Your task to perform on an android device: Show me popular games on the Play Store Image 0: 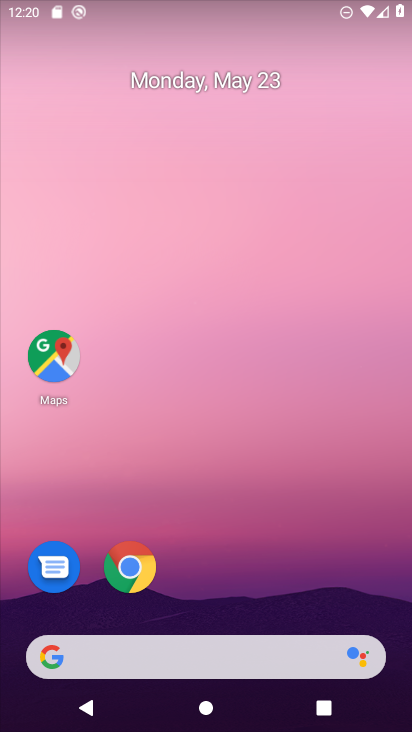
Step 0: drag from (183, 623) to (255, 52)
Your task to perform on an android device: Show me popular games on the Play Store Image 1: 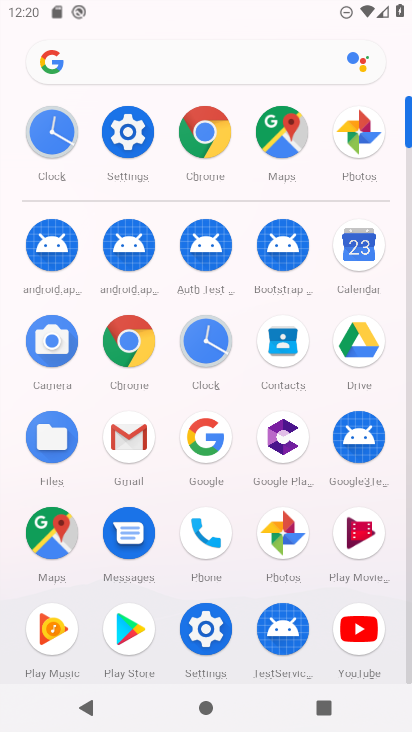
Step 1: drag from (240, 663) to (292, 343)
Your task to perform on an android device: Show me popular games on the Play Store Image 2: 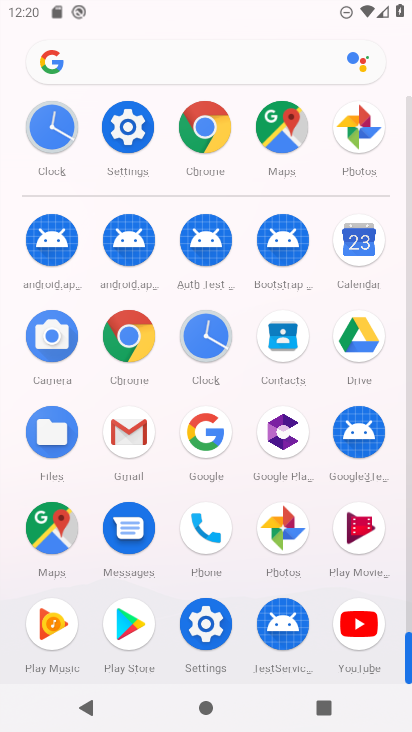
Step 2: click (130, 611)
Your task to perform on an android device: Show me popular games on the Play Store Image 3: 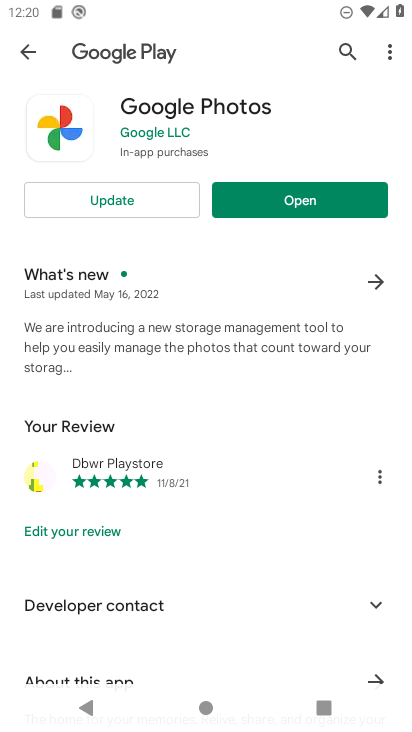
Step 3: click (130, 611)
Your task to perform on an android device: Show me popular games on the Play Store Image 4: 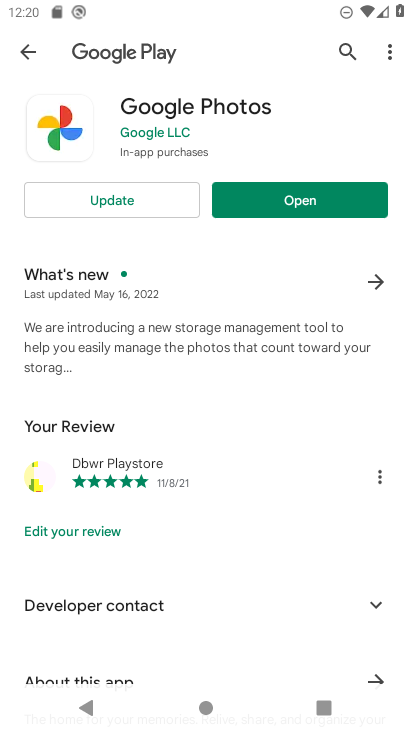
Step 4: click (130, 611)
Your task to perform on an android device: Show me popular games on the Play Store Image 5: 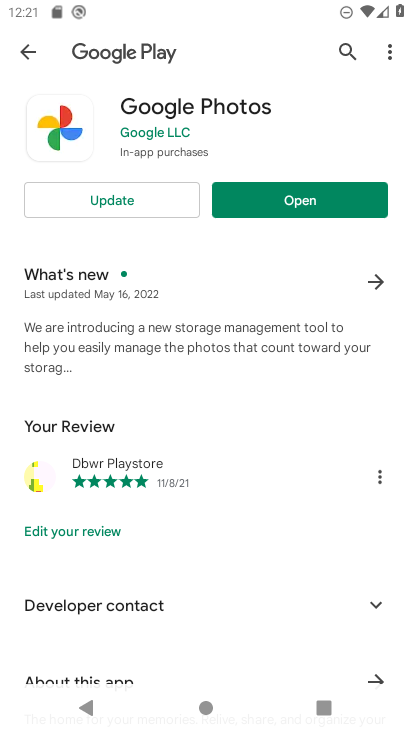
Step 5: task complete